Your task to perform on an android device: turn smart compose on in the gmail app Image 0: 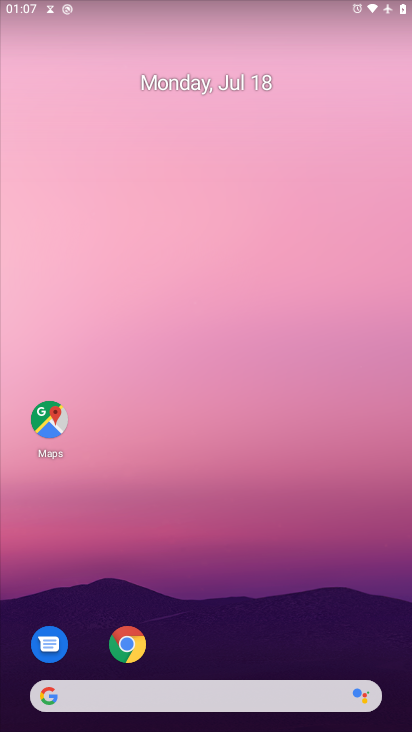
Step 0: press home button
Your task to perform on an android device: turn smart compose on in the gmail app Image 1: 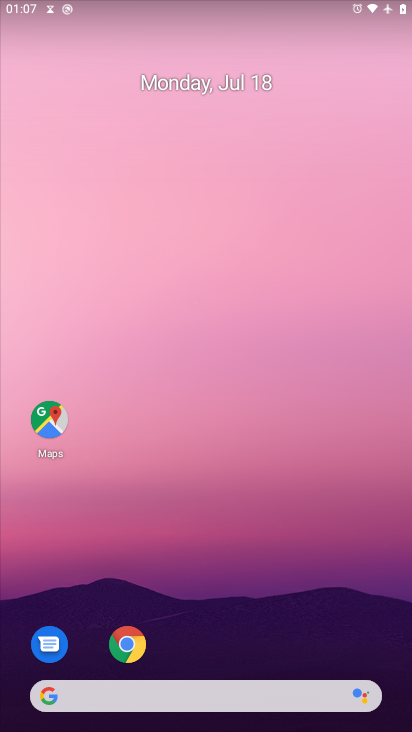
Step 1: drag from (225, 663) to (367, 119)
Your task to perform on an android device: turn smart compose on in the gmail app Image 2: 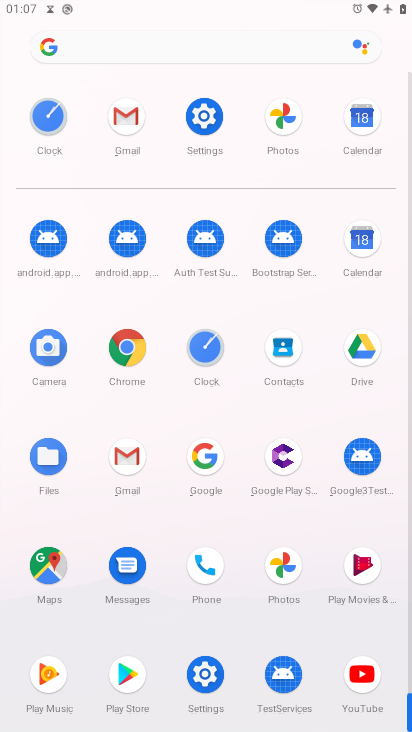
Step 2: click (129, 121)
Your task to perform on an android device: turn smart compose on in the gmail app Image 3: 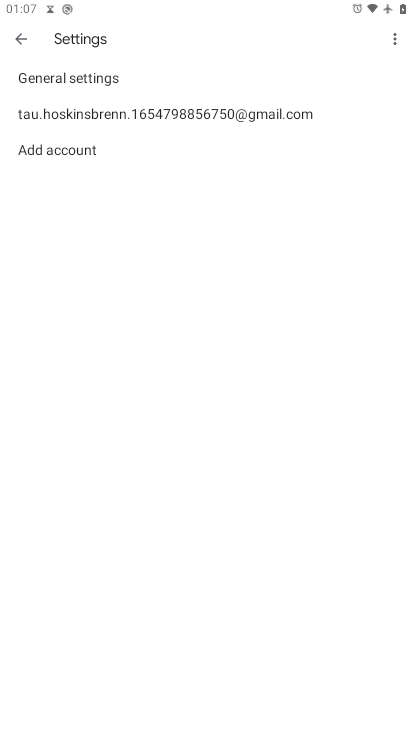
Step 3: click (25, 35)
Your task to perform on an android device: turn smart compose on in the gmail app Image 4: 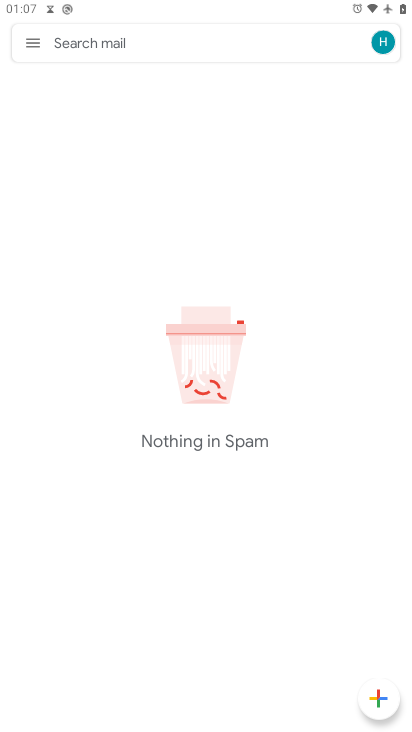
Step 4: click (39, 44)
Your task to perform on an android device: turn smart compose on in the gmail app Image 5: 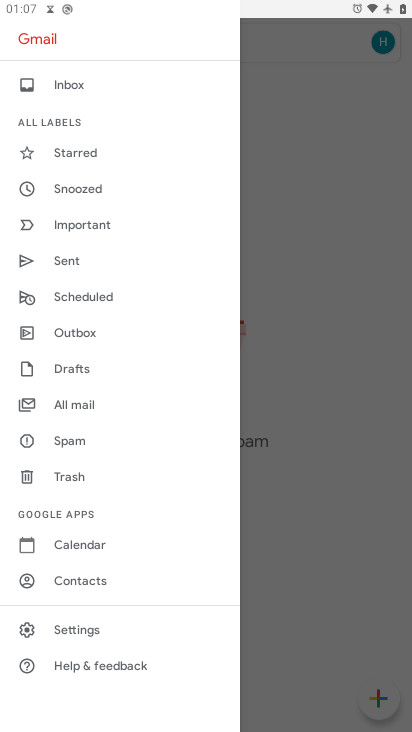
Step 5: click (80, 628)
Your task to perform on an android device: turn smart compose on in the gmail app Image 6: 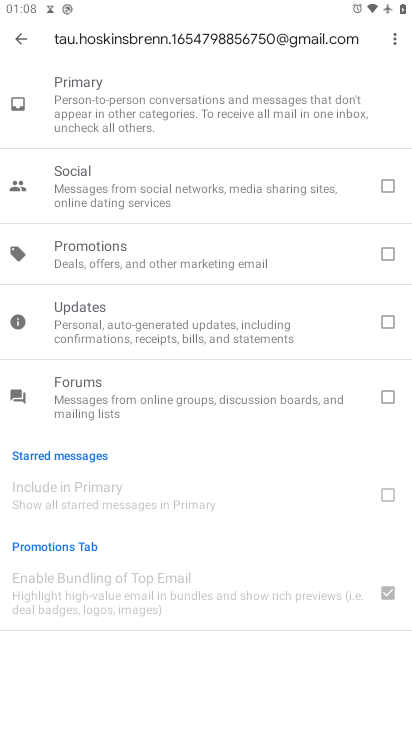
Step 6: click (20, 35)
Your task to perform on an android device: turn smart compose on in the gmail app Image 7: 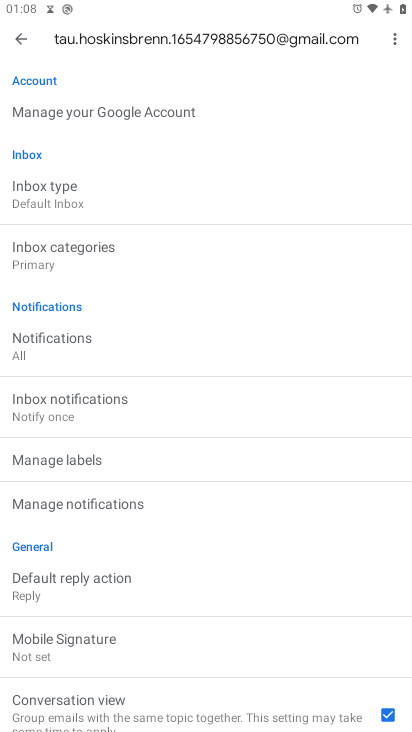
Step 7: task complete